Your task to perform on an android device: see creations saved in the google photos Image 0: 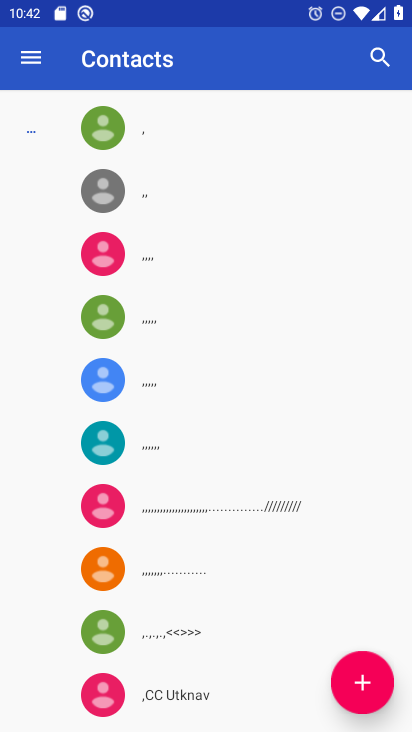
Step 0: press home button
Your task to perform on an android device: see creations saved in the google photos Image 1: 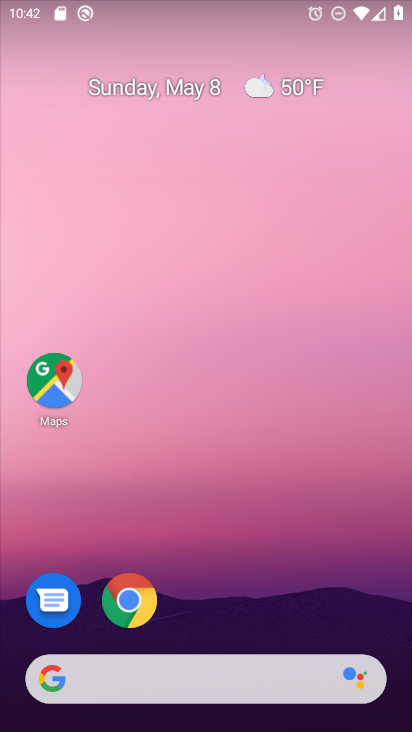
Step 1: drag from (192, 724) to (240, 121)
Your task to perform on an android device: see creations saved in the google photos Image 2: 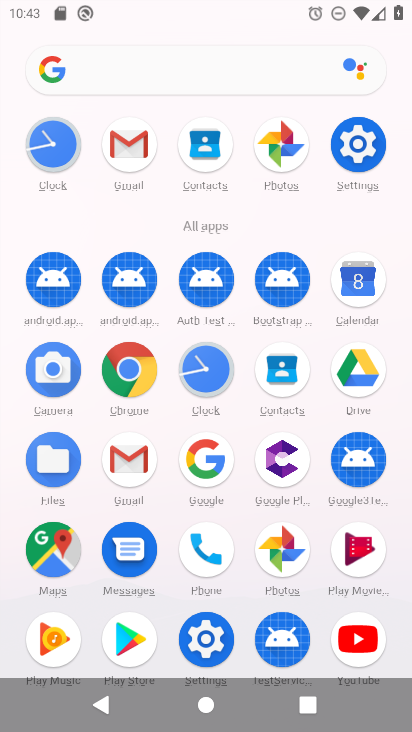
Step 2: click (281, 548)
Your task to perform on an android device: see creations saved in the google photos Image 3: 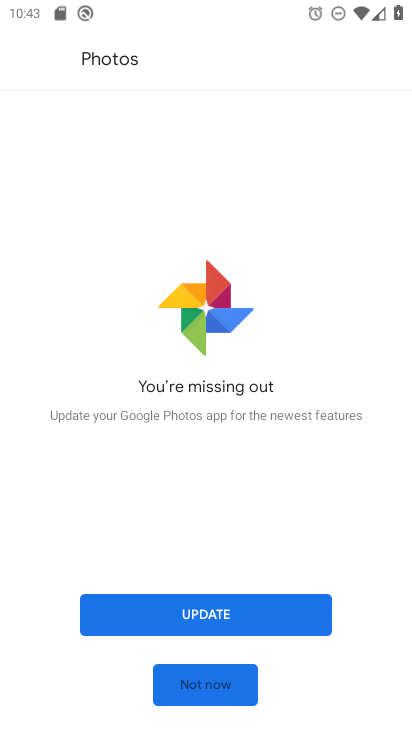
Step 3: task complete